Your task to perform on an android device: delete the emails in spam in the gmail app Image 0: 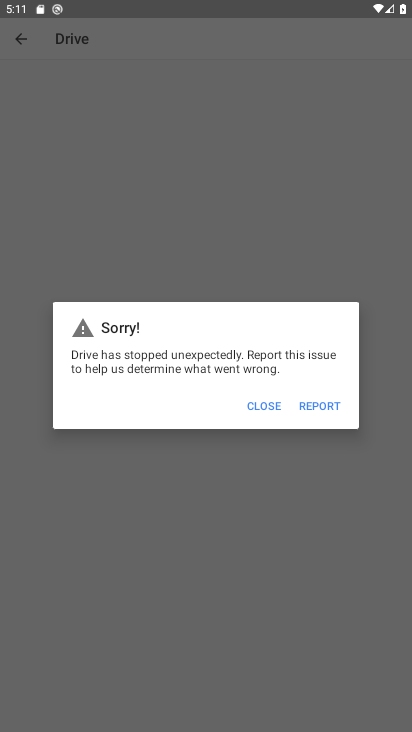
Step 0: press home button
Your task to perform on an android device: delete the emails in spam in the gmail app Image 1: 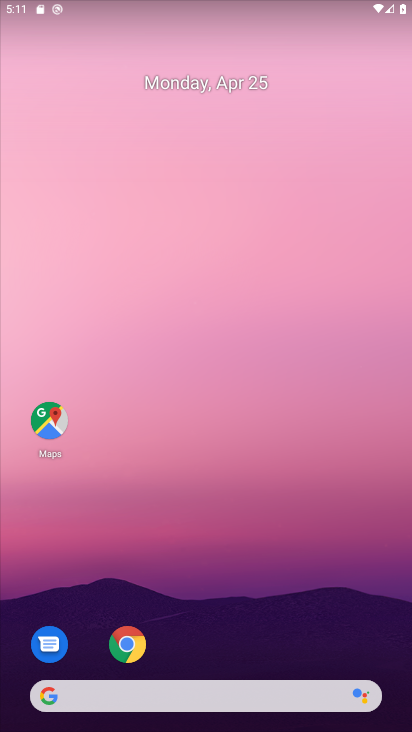
Step 1: drag from (223, 628) to (174, 152)
Your task to perform on an android device: delete the emails in spam in the gmail app Image 2: 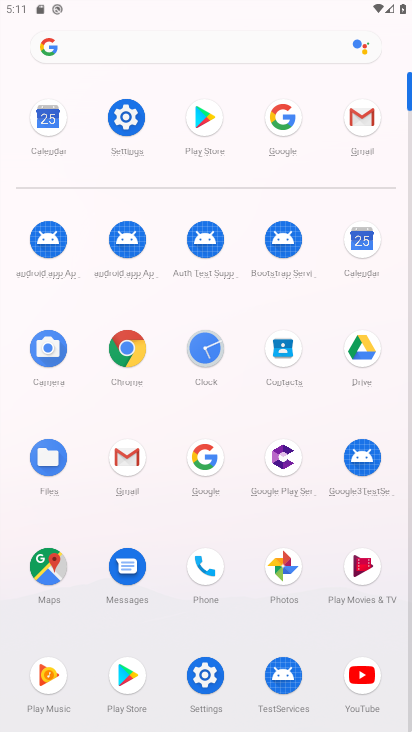
Step 2: click (358, 119)
Your task to perform on an android device: delete the emails in spam in the gmail app Image 3: 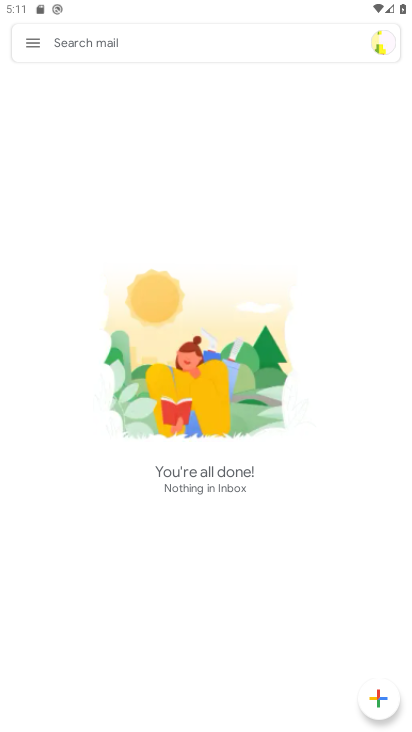
Step 3: click (28, 41)
Your task to perform on an android device: delete the emails in spam in the gmail app Image 4: 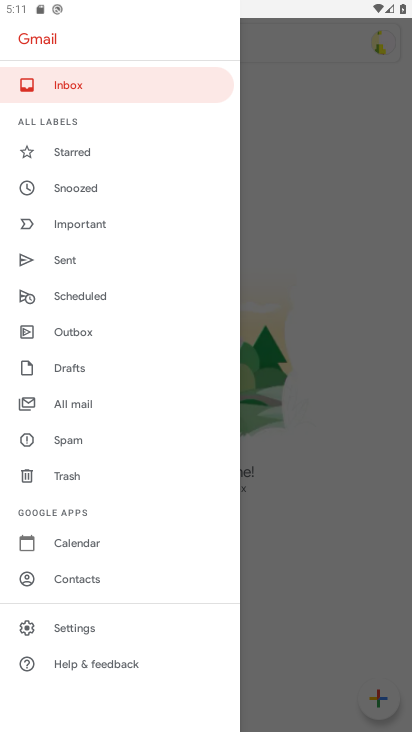
Step 4: click (87, 442)
Your task to perform on an android device: delete the emails in spam in the gmail app Image 5: 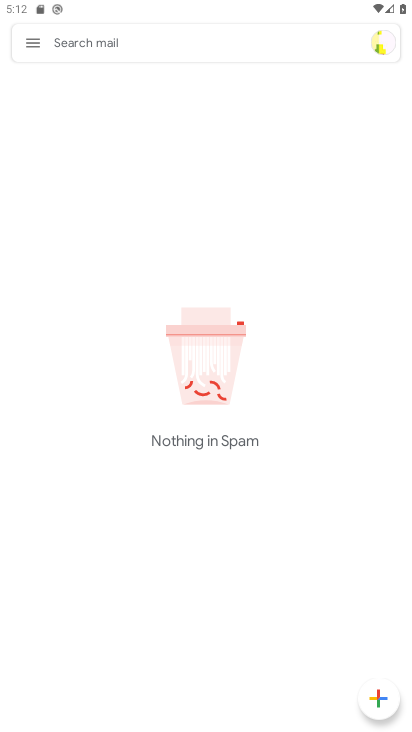
Step 5: task complete